Your task to perform on an android device: Go to settings Image 0: 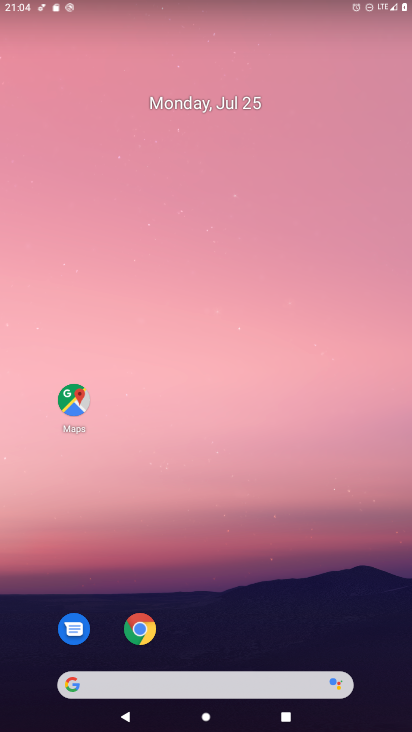
Step 0: drag from (159, 690) to (244, 149)
Your task to perform on an android device: Go to settings Image 1: 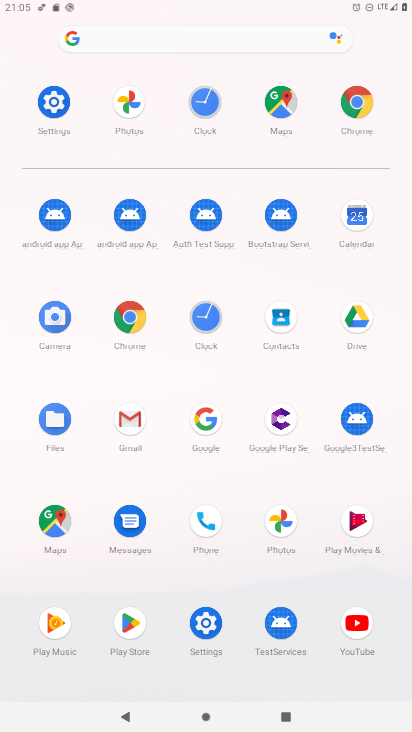
Step 1: click (53, 103)
Your task to perform on an android device: Go to settings Image 2: 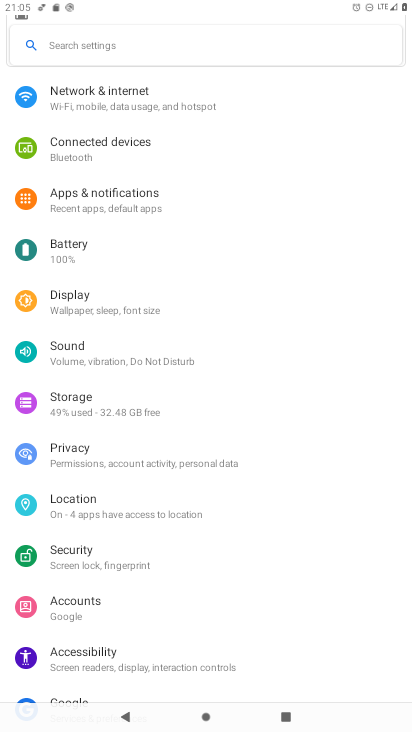
Step 2: task complete